Your task to perform on an android device: change the upload size in google photos Image 0: 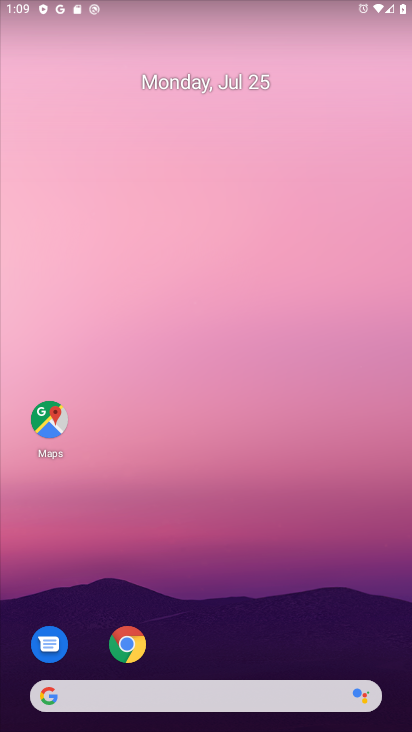
Step 0: drag from (277, 608) to (343, 3)
Your task to perform on an android device: change the upload size in google photos Image 1: 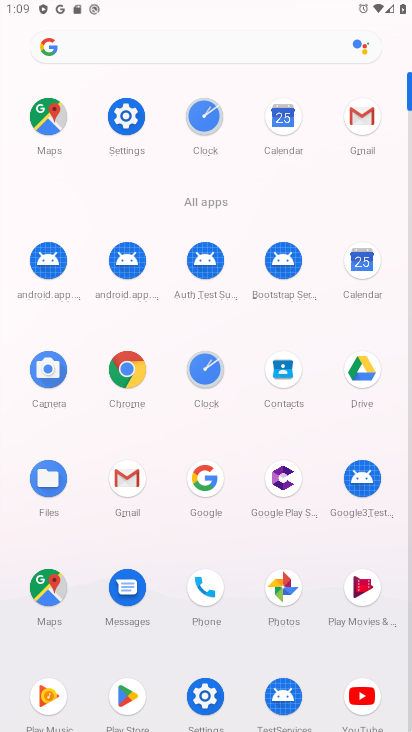
Step 1: click (287, 589)
Your task to perform on an android device: change the upload size in google photos Image 2: 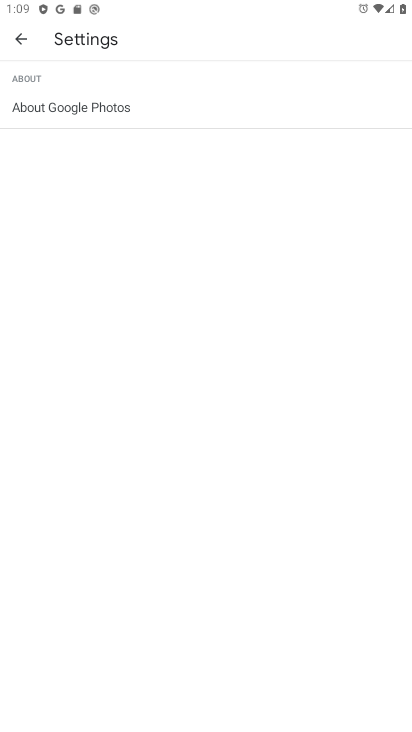
Step 2: click (20, 34)
Your task to perform on an android device: change the upload size in google photos Image 3: 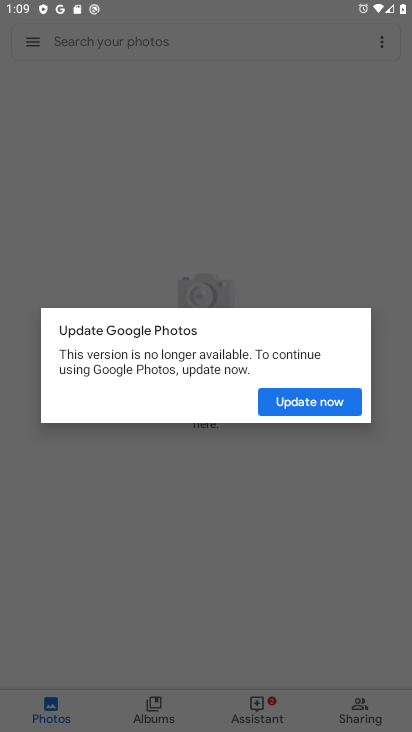
Step 3: click (348, 405)
Your task to perform on an android device: change the upload size in google photos Image 4: 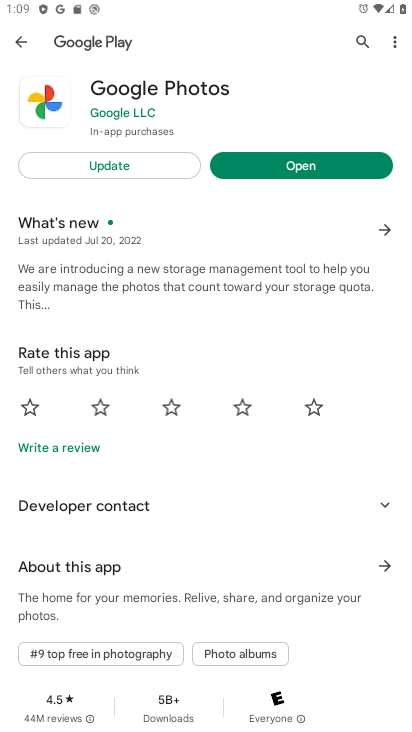
Step 4: click (107, 165)
Your task to perform on an android device: change the upload size in google photos Image 5: 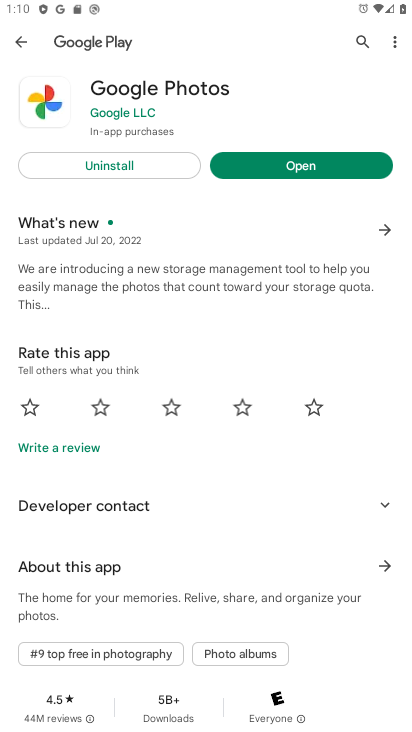
Step 5: click (254, 169)
Your task to perform on an android device: change the upload size in google photos Image 6: 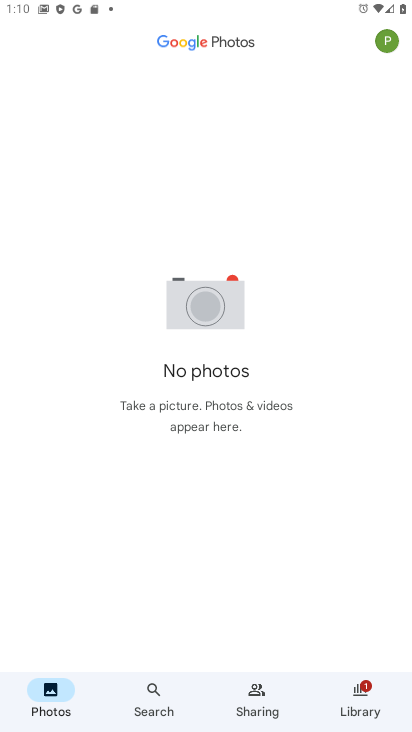
Step 6: click (383, 32)
Your task to perform on an android device: change the upload size in google photos Image 7: 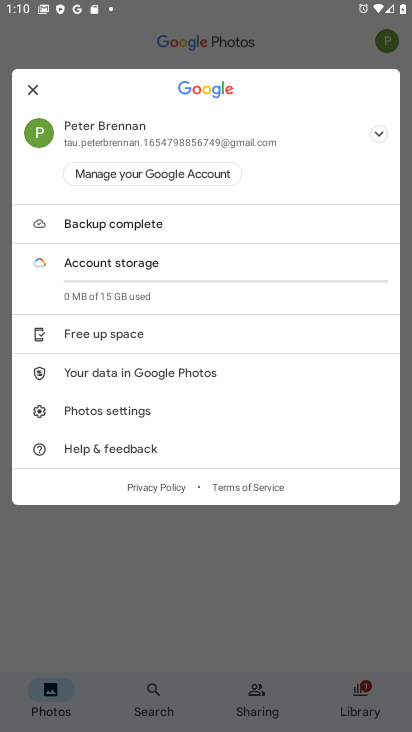
Step 7: click (106, 402)
Your task to perform on an android device: change the upload size in google photos Image 8: 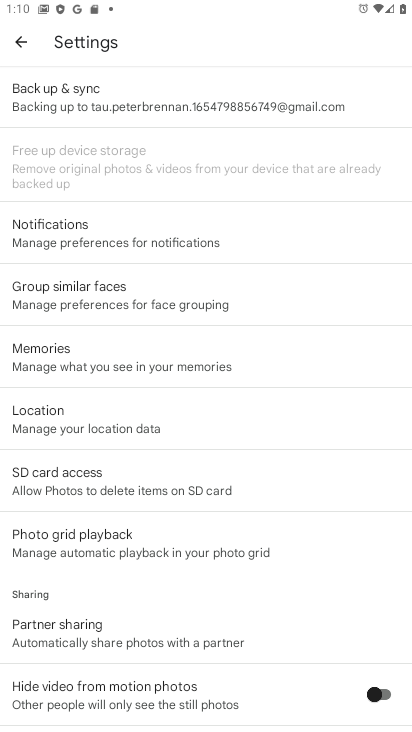
Step 8: click (176, 102)
Your task to perform on an android device: change the upload size in google photos Image 9: 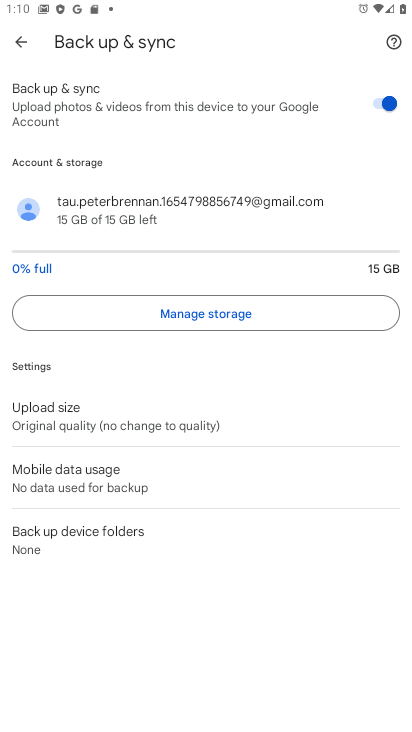
Step 9: click (96, 419)
Your task to perform on an android device: change the upload size in google photos Image 10: 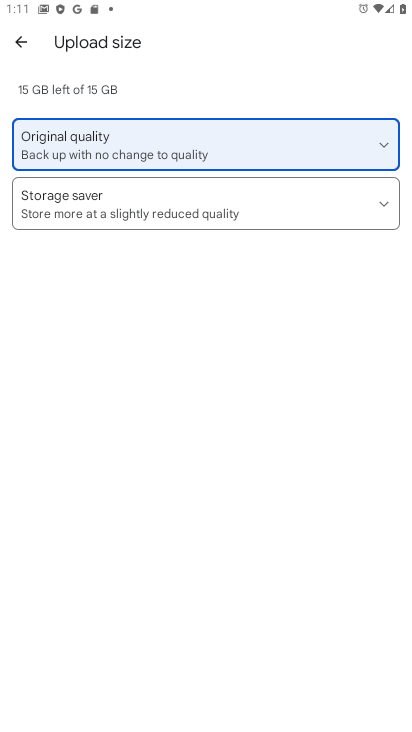
Step 10: click (150, 199)
Your task to perform on an android device: change the upload size in google photos Image 11: 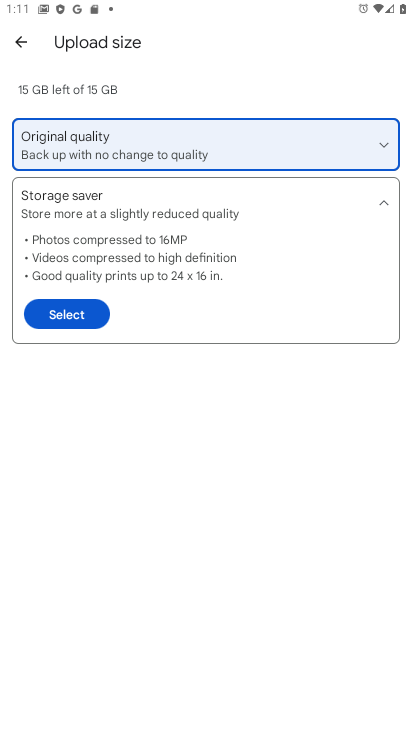
Step 11: click (53, 311)
Your task to perform on an android device: change the upload size in google photos Image 12: 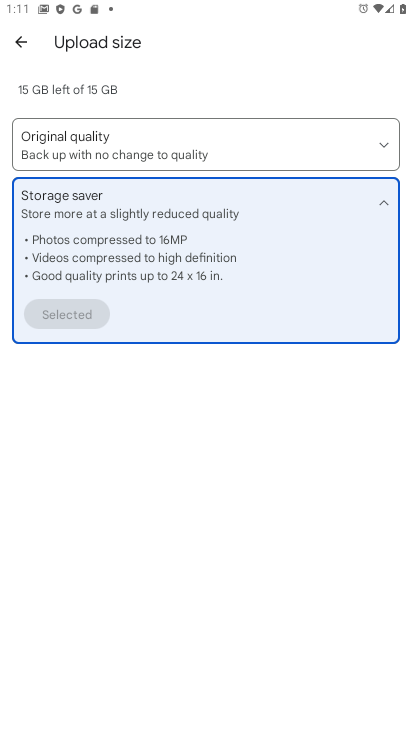
Step 12: task complete